Your task to perform on an android device: Search for the best books on Goodreads. Image 0: 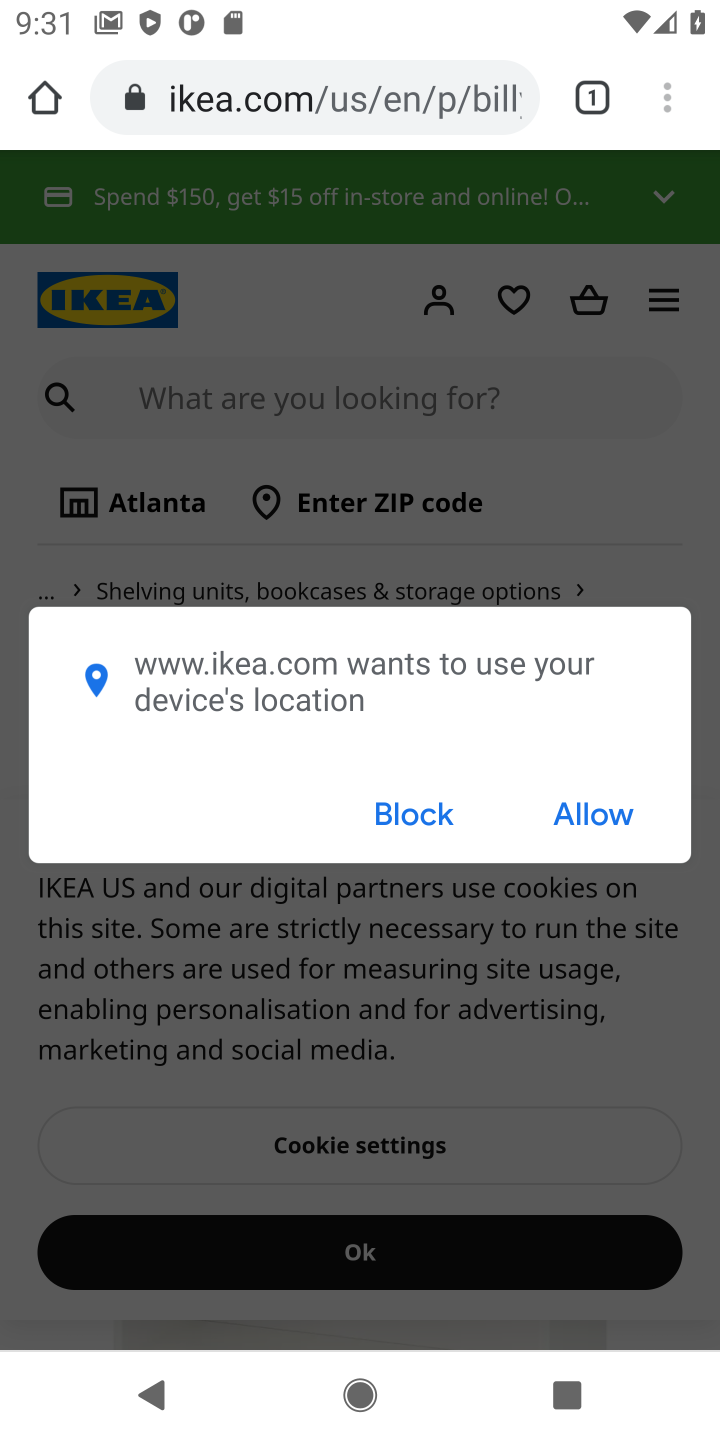
Step 0: click (357, 87)
Your task to perform on an android device: Search for the best books on Goodreads. Image 1: 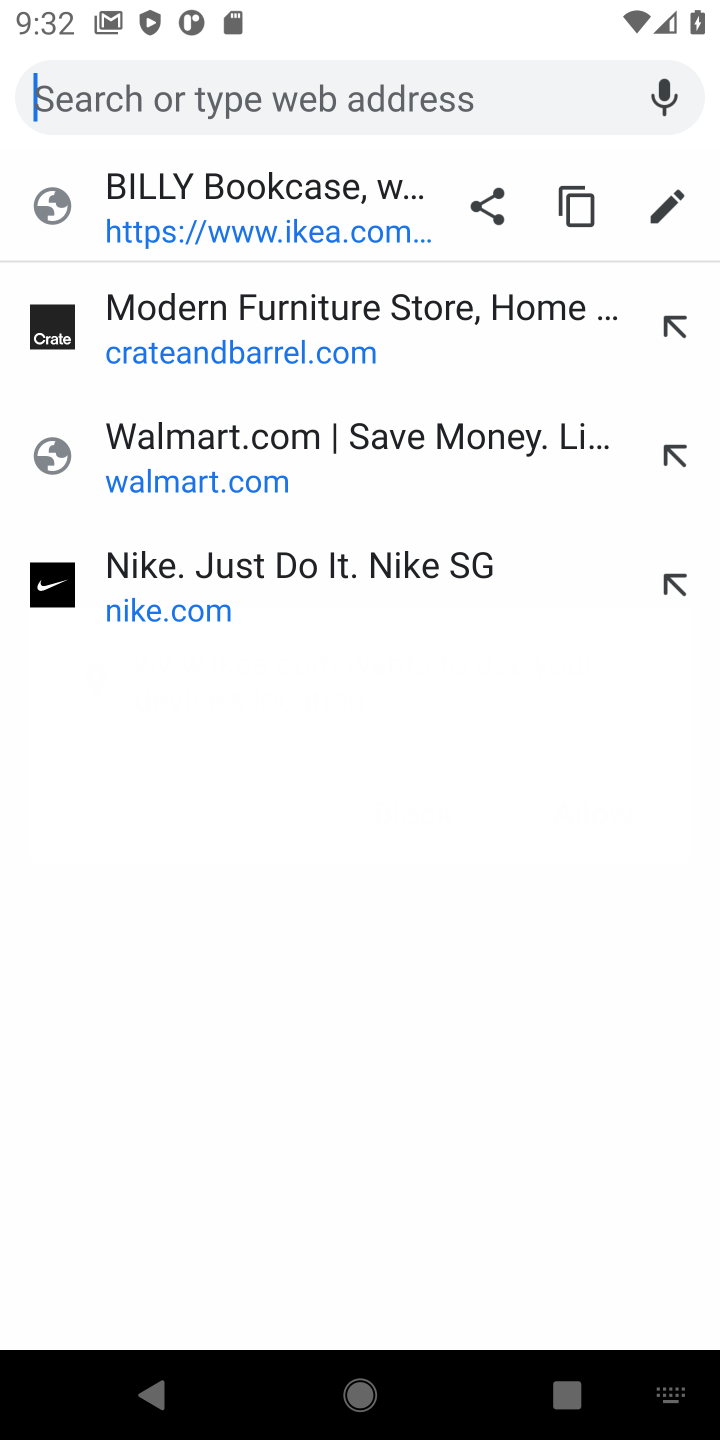
Step 1: type "goodreads"
Your task to perform on an android device: Search for the best books on Goodreads. Image 2: 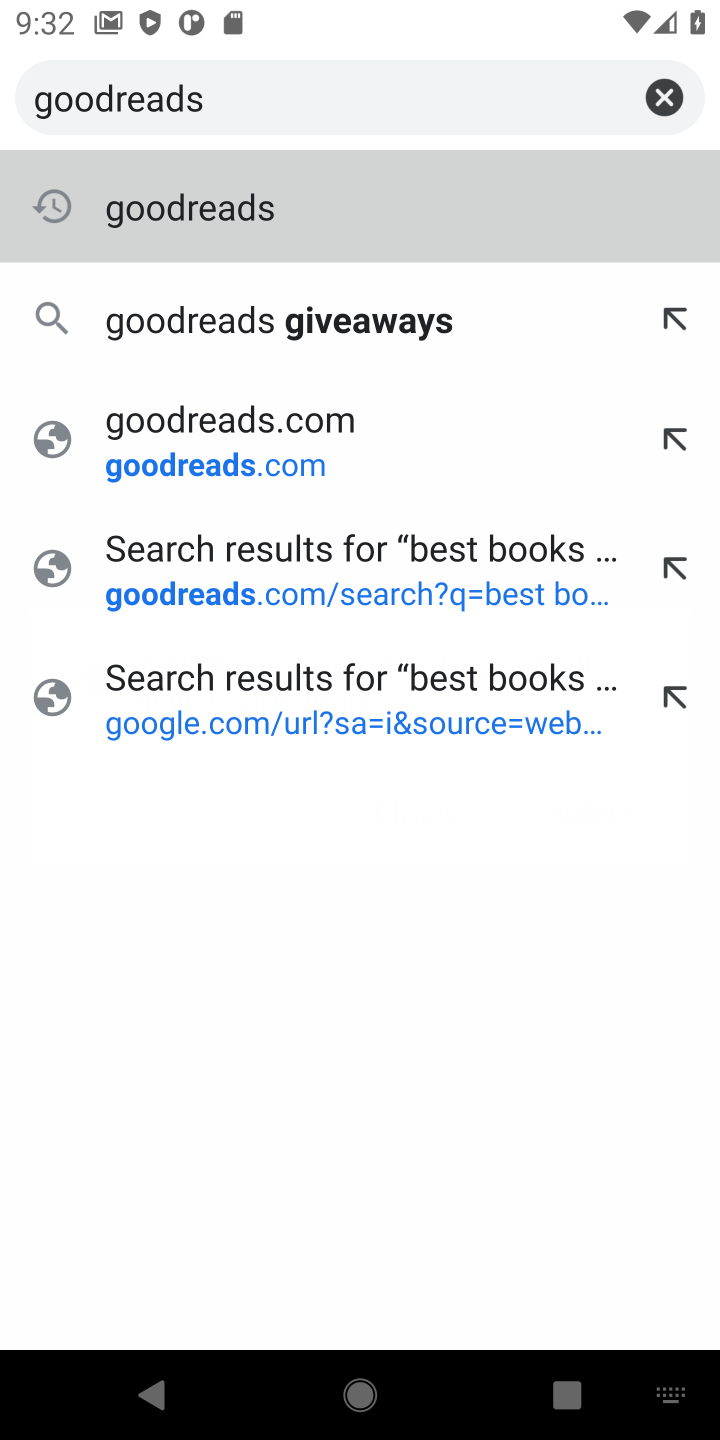
Step 2: click (332, 219)
Your task to perform on an android device: Search for the best books on Goodreads. Image 3: 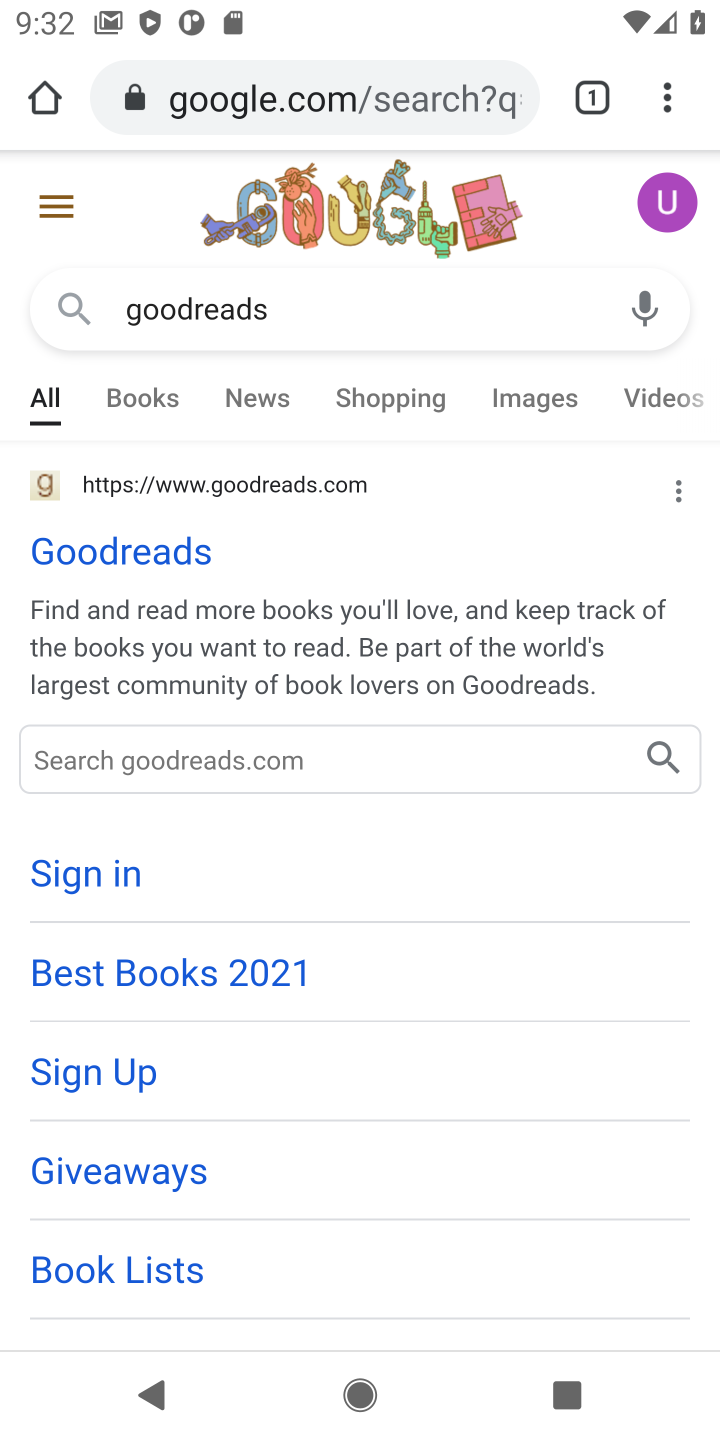
Step 3: click (313, 773)
Your task to perform on an android device: Search for the best books on Goodreads. Image 4: 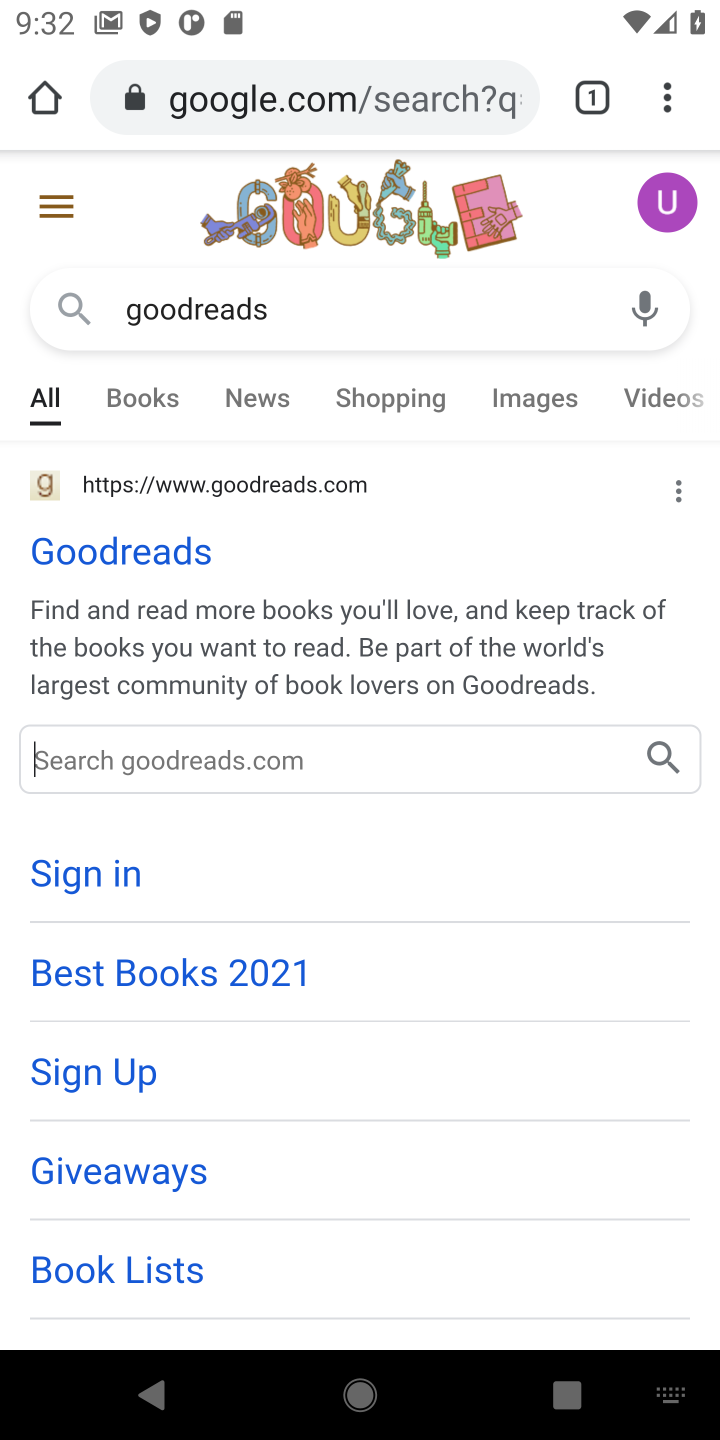
Step 4: click (521, 775)
Your task to perform on an android device: Search for the best books on Goodreads. Image 5: 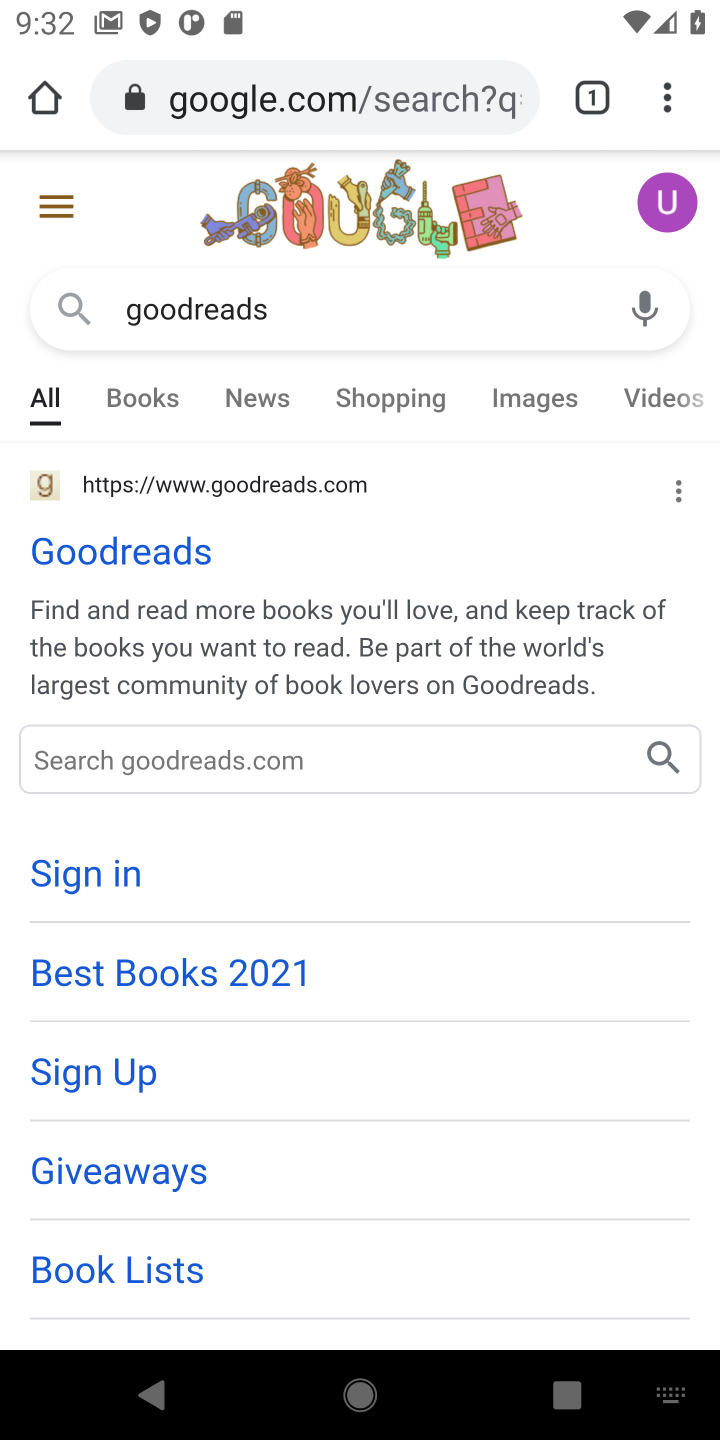
Step 5: type "best books"
Your task to perform on an android device: Search for the best books on Goodreads. Image 6: 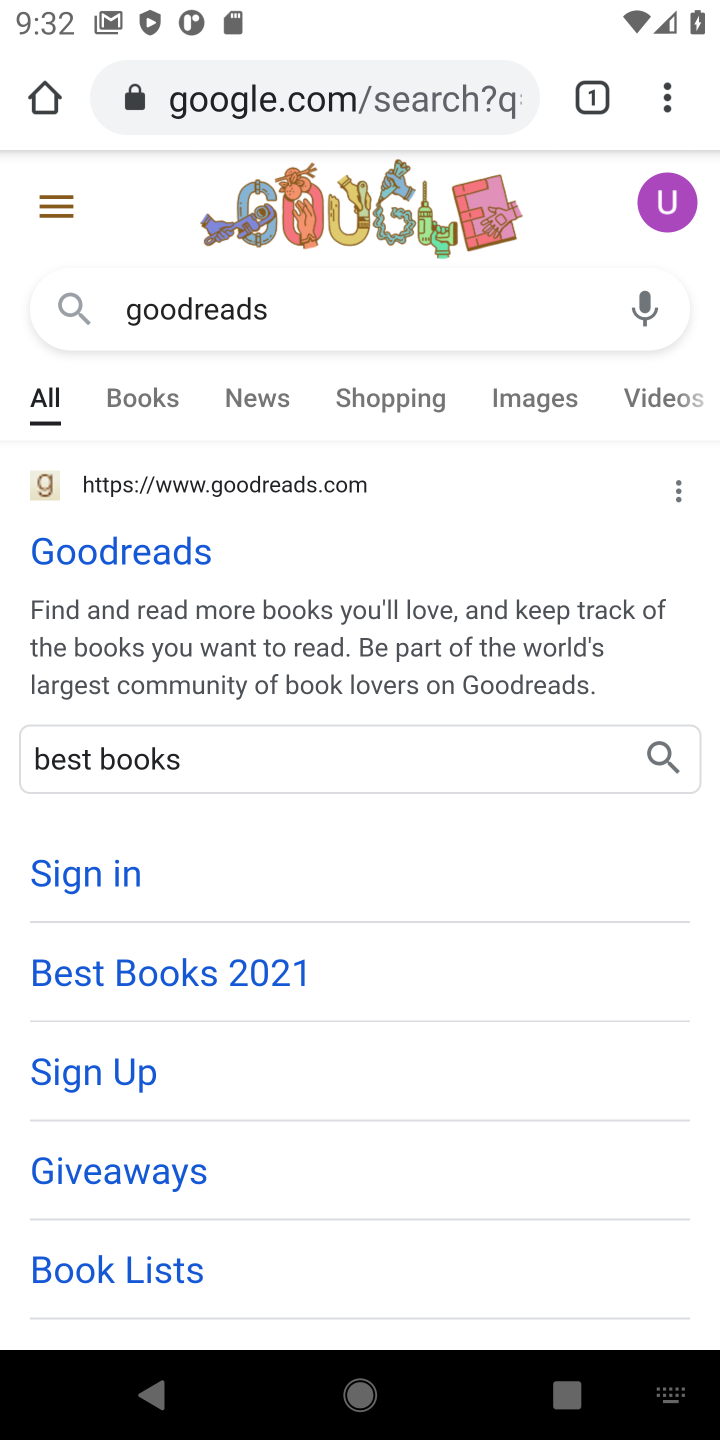
Step 6: click (668, 760)
Your task to perform on an android device: Search for the best books on Goodreads. Image 7: 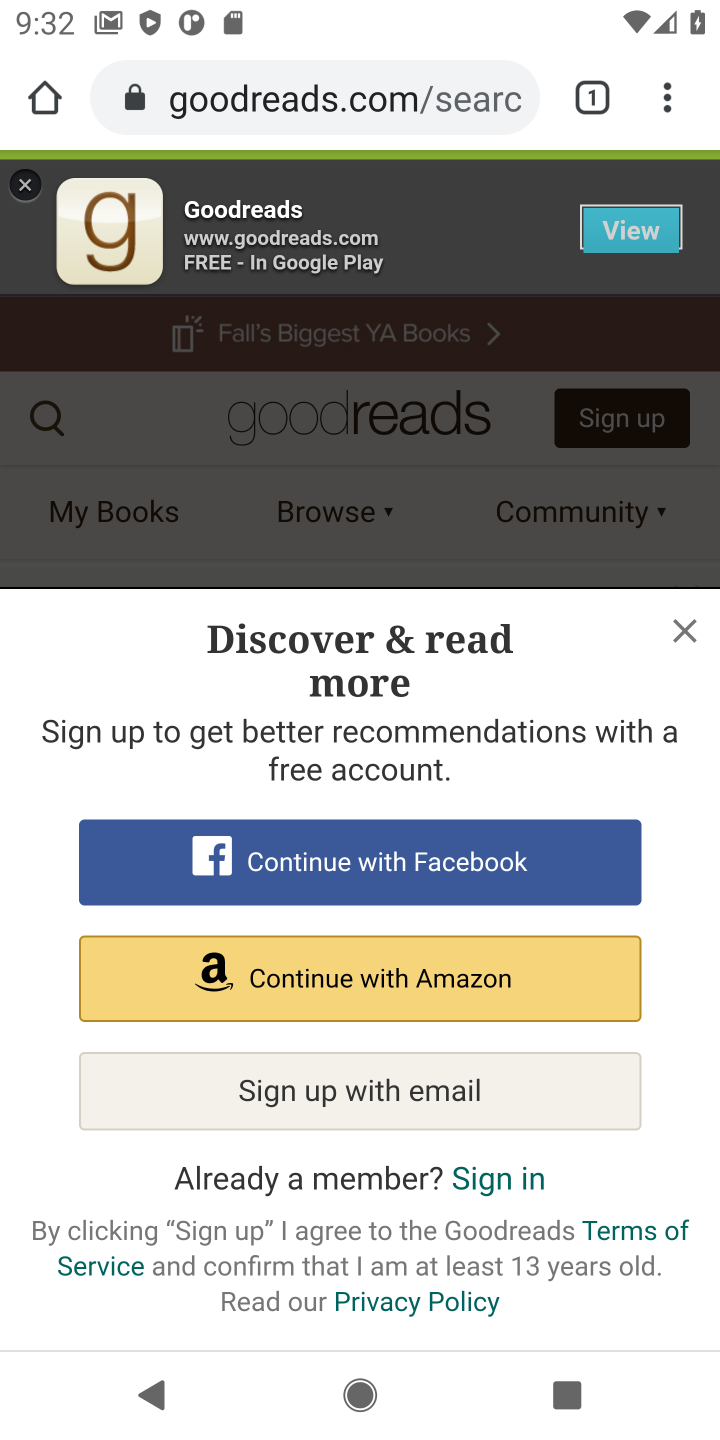
Step 7: task complete